Your task to perform on an android device: toggle data saver in the chrome app Image 0: 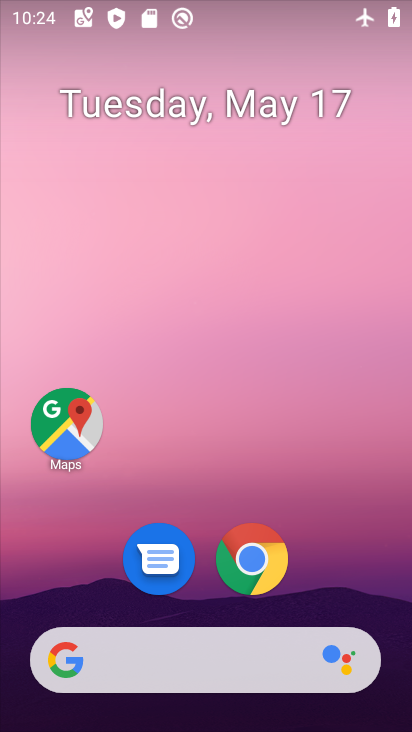
Step 0: click (249, 577)
Your task to perform on an android device: toggle data saver in the chrome app Image 1: 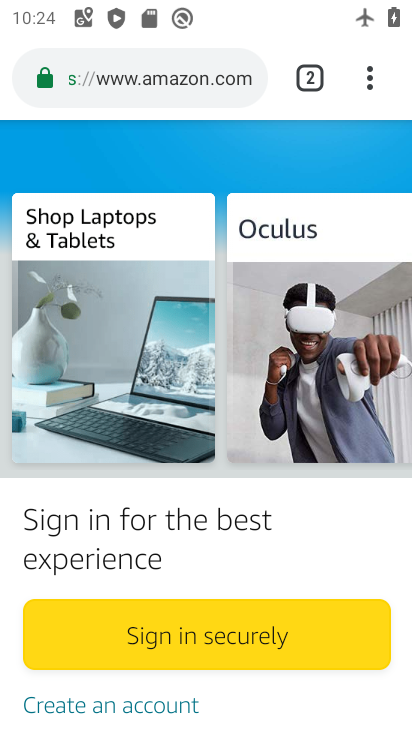
Step 1: click (373, 83)
Your task to perform on an android device: toggle data saver in the chrome app Image 2: 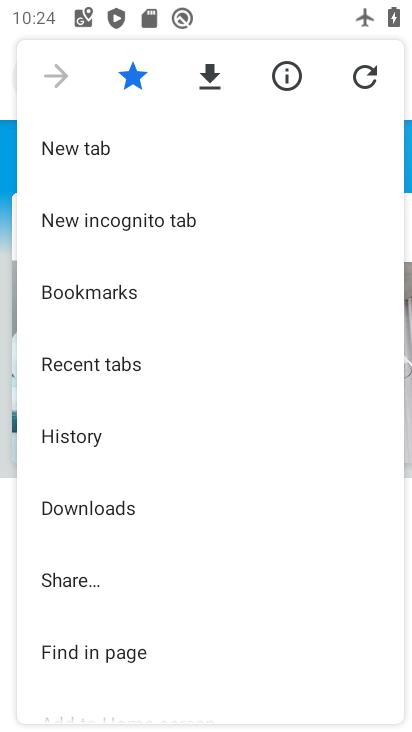
Step 2: drag from (187, 616) to (163, 217)
Your task to perform on an android device: toggle data saver in the chrome app Image 3: 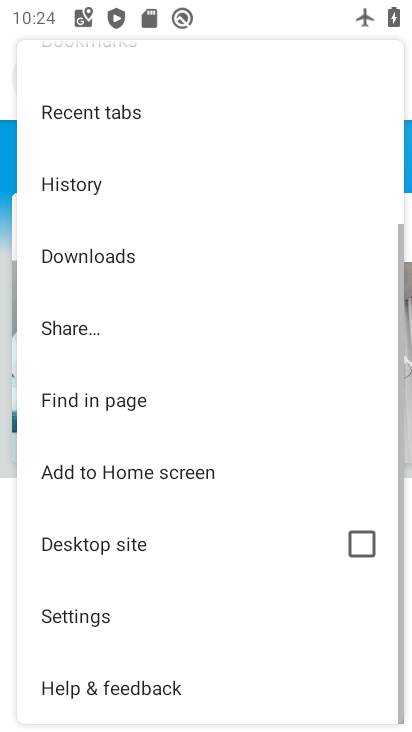
Step 3: click (119, 608)
Your task to perform on an android device: toggle data saver in the chrome app Image 4: 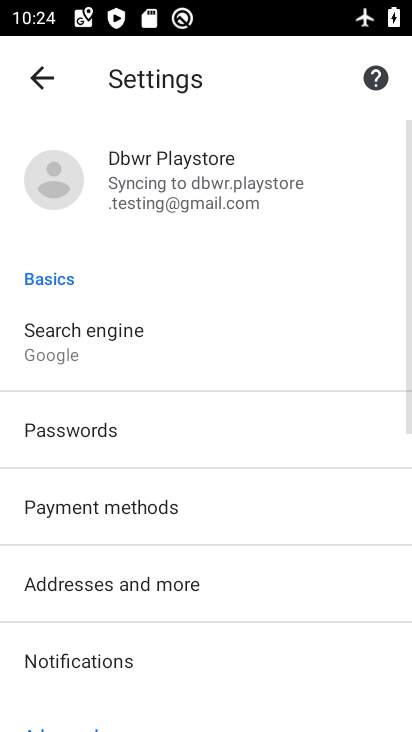
Step 4: drag from (336, 677) to (321, 165)
Your task to perform on an android device: toggle data saver in the chrome app Image 5: 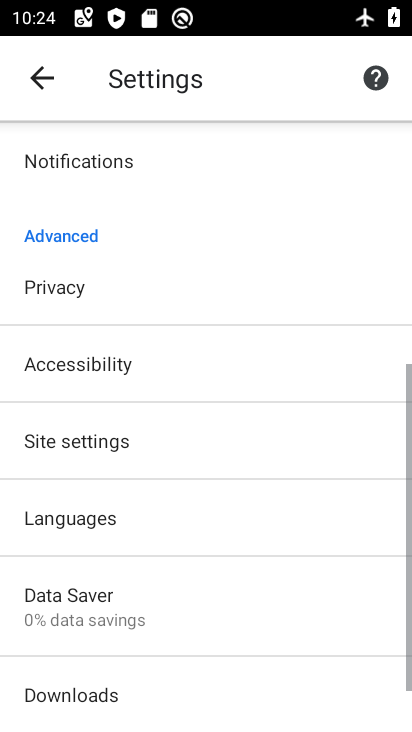
Step 5: click (163, 620)
Your task to perform on an android device: toggle data saver in the chrome app Image 6: 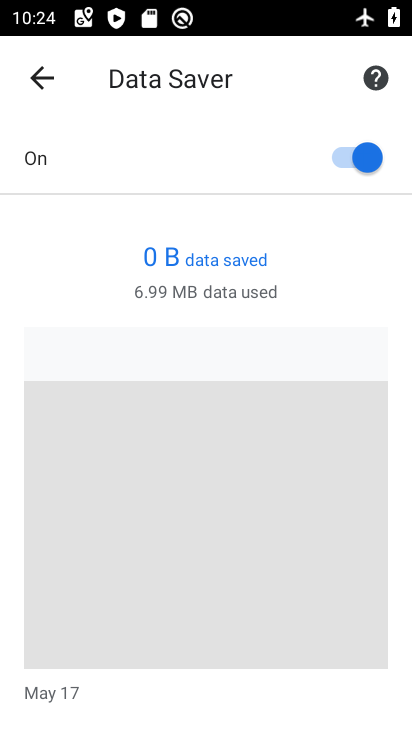
Step 6: click (354, 162)
Your task to perform on an android device: toggle data saver in the chrome app Image 7: 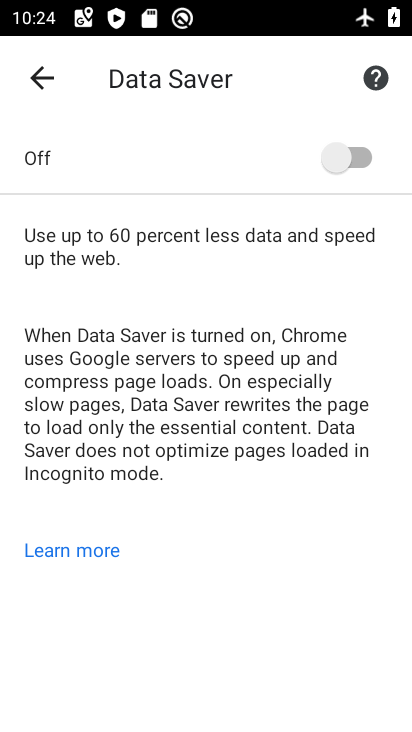
Step 7: task complete